Your task to perform on an android device: create a new album in the google photos Image 0: 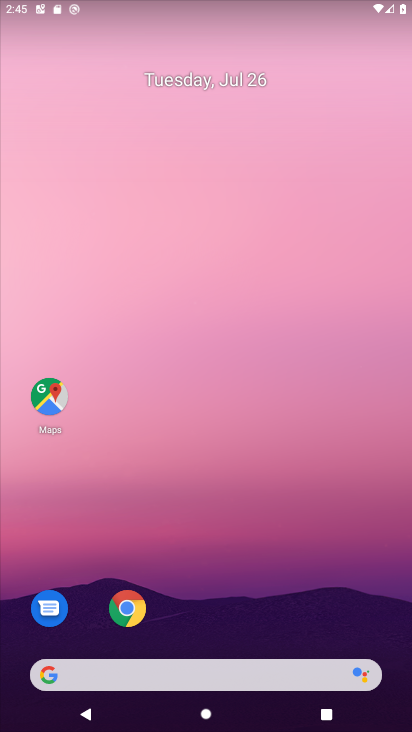
Step 0: drag from (267, 605) to (233, 184)
Your task to perform on an android device: create a new album in the google photos Image 1: 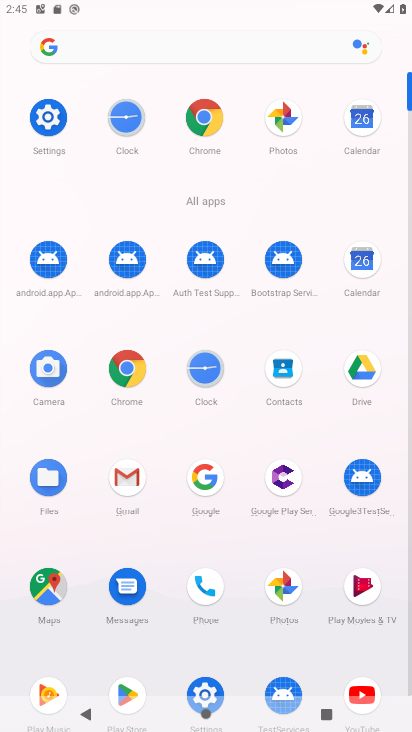
Step 1: click (284, 579)
Your task to perform on an android device: create a new album in the google photos Image 2: 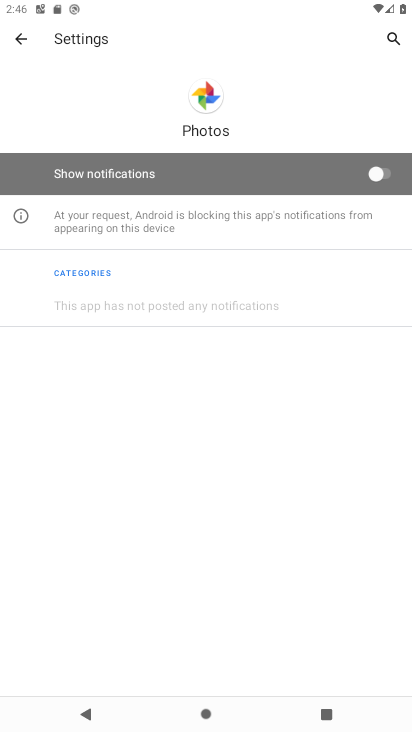
Step 2: click (14, 47)
Your task to perform on an android device: create a new album in the google photos Image 3: 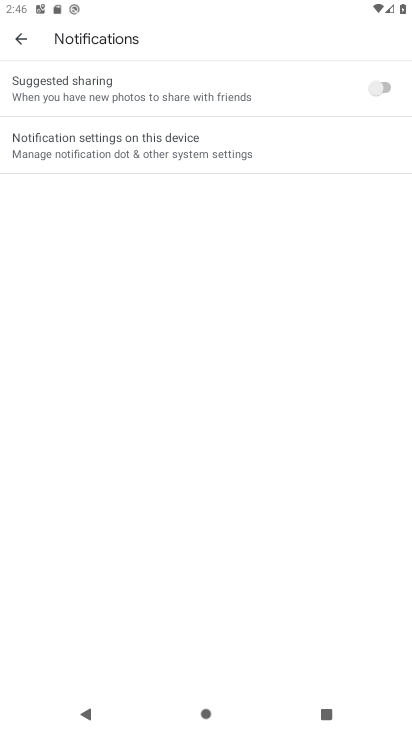
Step 3: click (16, 34)
Your task to perform on an android device: create a new album in the google photos Image 4: 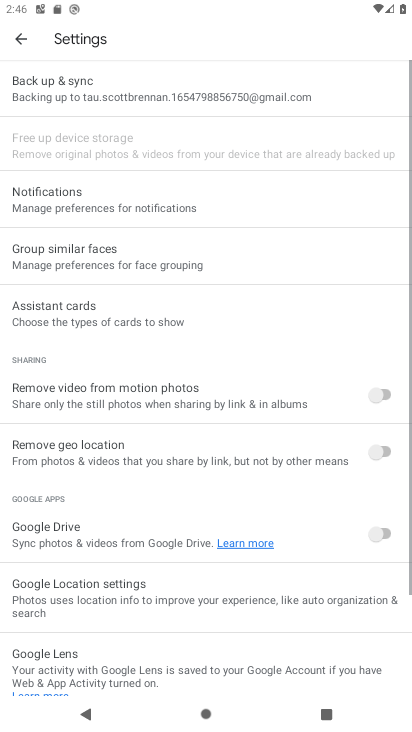
Step 4: click (16, 34)
Your task to perform on an android device: create a new album in the google photos Image 5: 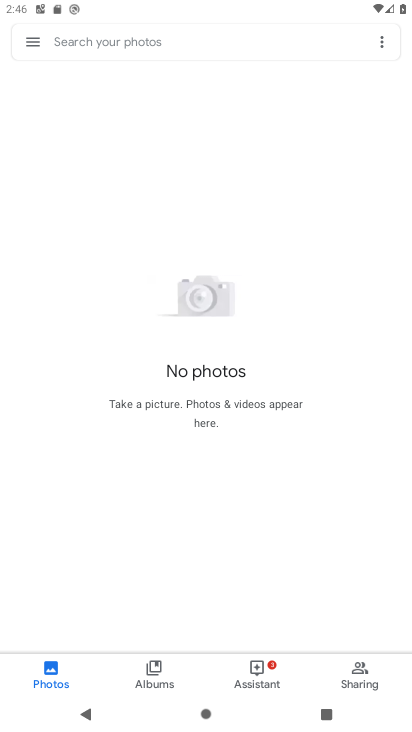
Step 5: task complete